Your task to perform on an android device: turn on bluetooth scan Image 0: 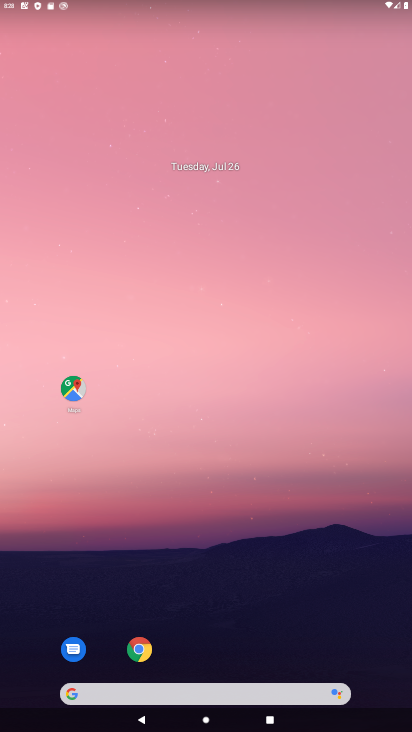
Step 0: drag from (199, 666) to (259, 101)
Your task to perform on an android device: turn on bluetooth scan Image 1: 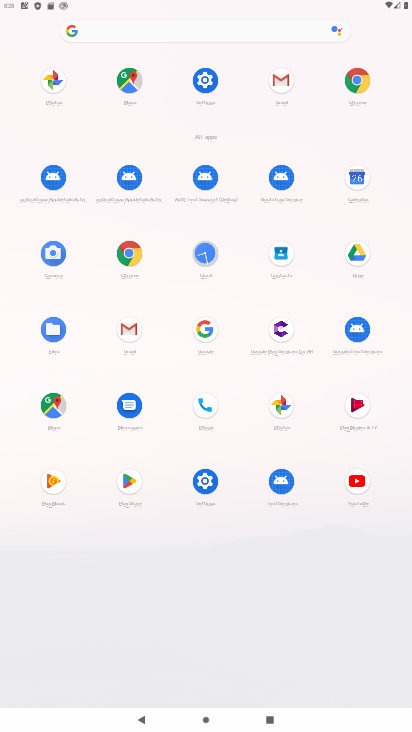
Step 1: click (212, 87)
Your task to perform on an android device: turn on bluetooth scan Image 2: 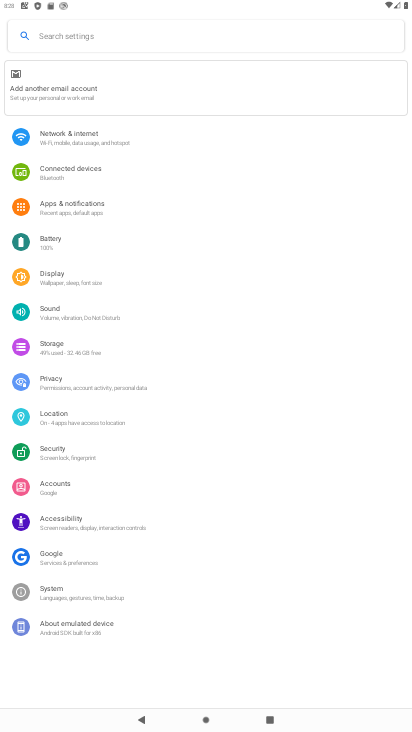
Step 2: click (69, 424)
Your task to perform on an android device: turn on bluetooth scan Image 3: 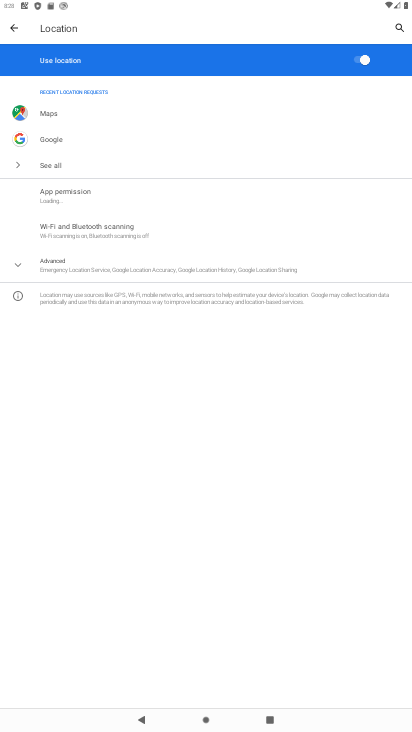
Step 3: click (119, 237)
Your task to perform on an android device: turn on bluetooth scan Image 4: 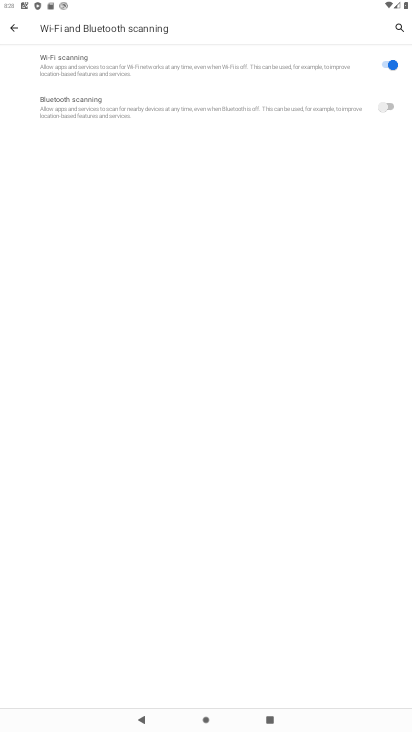
Step 4: click (397, 107)
Your task to perform on an android device: turn on bluetooth scan Image 5: 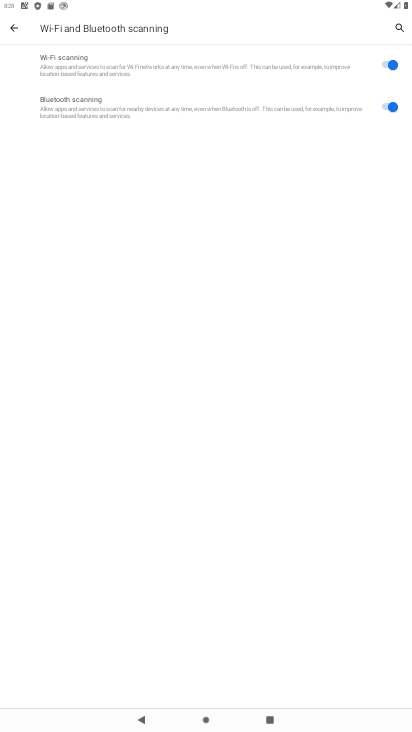
Step 5: task complete